Your task to perform on an android device: Go to internet settings Image 0: 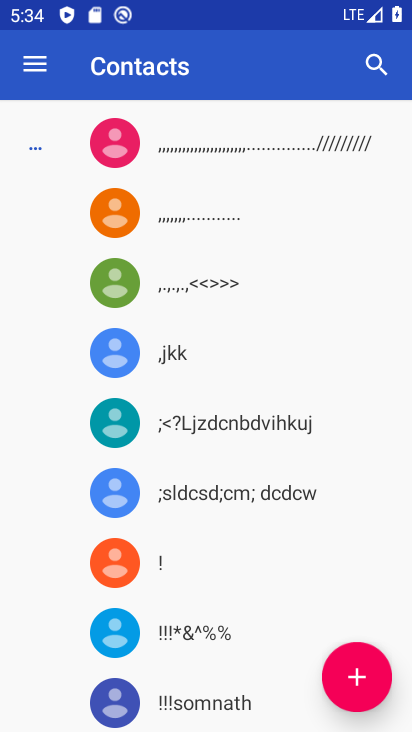
Step 0: drag from (252, 21) to (282, 711)
Your task to perform on an android device: Go to internet settings Image 1: 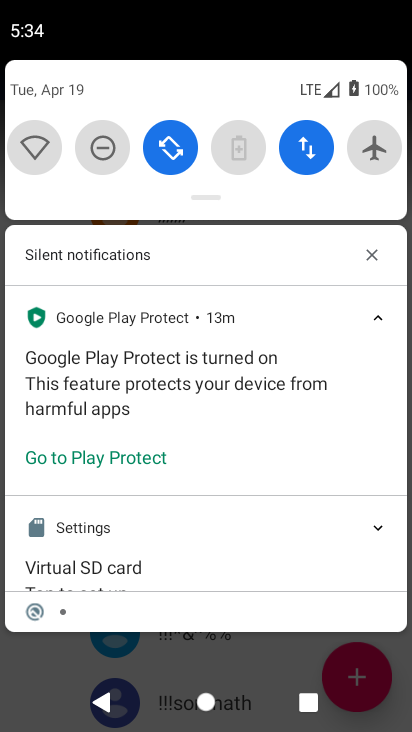
Step 1: drag from (211, 104) to (310, 631)
Your task to perform on an android device: Go to internet settings Image 2: 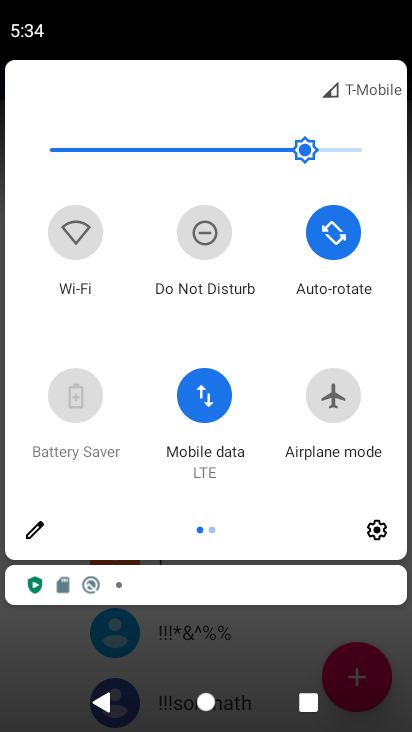
Step 2: click (366, 533)
Your task to perform on an android device: Go to internet settings Image 3: 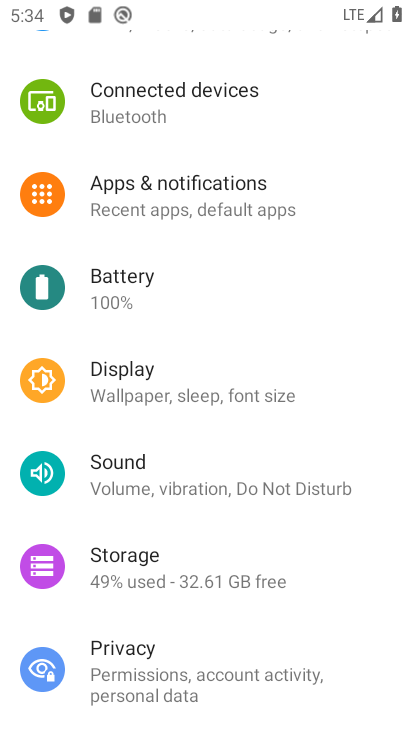
Step 3: drag from (175, 141) to (189, 641)
Your task to perform on an android device: Go to internet settings Image 4: 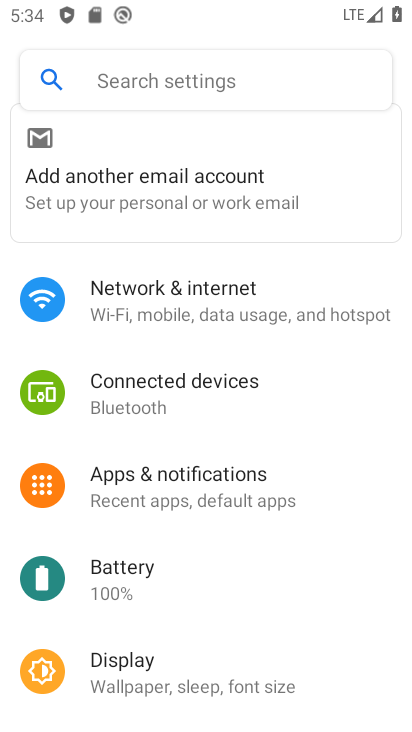
Step 4: click (123, 309)
Your task to perform on an android device: Go to internet settings Image 5: 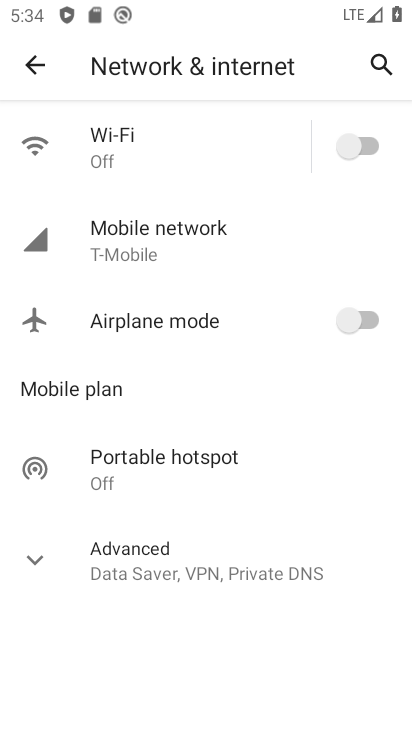
Step 5: click (286, 229)
Your task to perform on an android device: Go to internet settings Image 6: 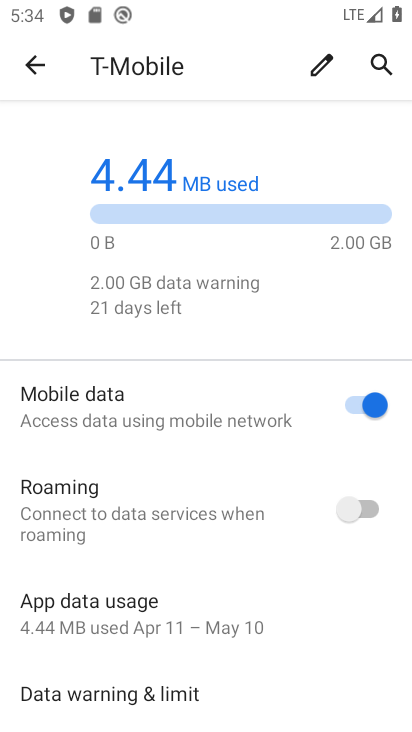
Step 6: task complete